Your task to perform on an android device: turn on bluetooth scan Image 0: 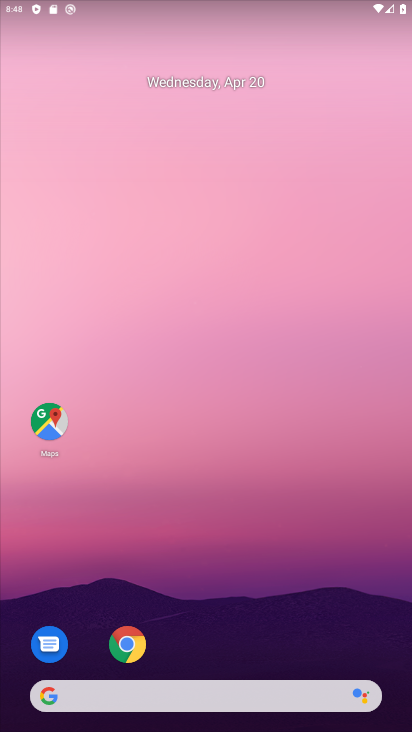
Step 0: drag from (197, 647) to (243, 262)
Your task to perform on an android device: turn on bluetooth scan Image 1: 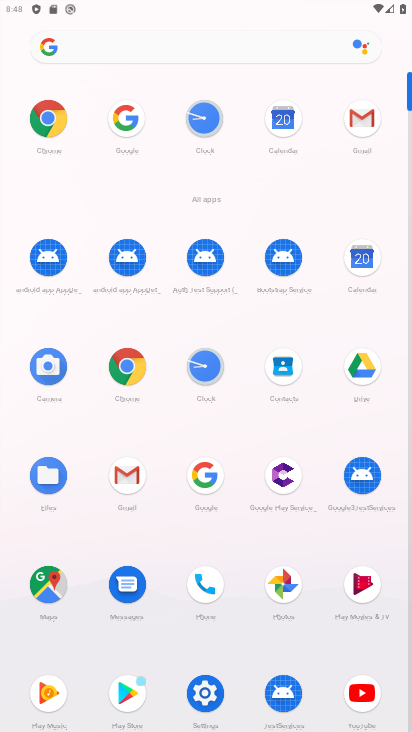
Step 1: click (204, 693)
Your task to perform on an android device: turn on bluetooth scan Image 2: 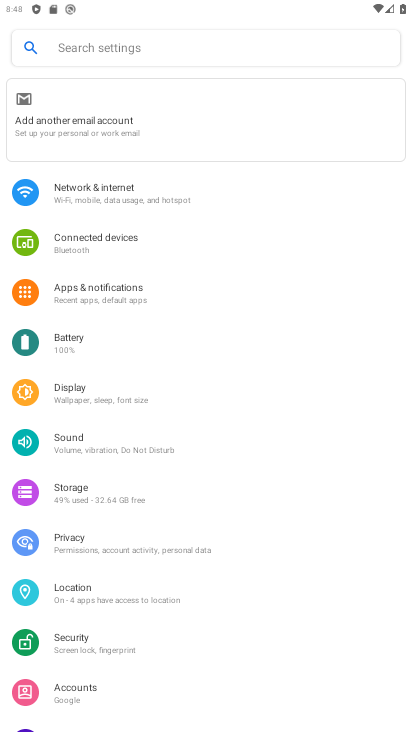
Step 2: drag from (108, 712) to (160, 270)
Your task to perform on an android device: turn on bluetooth scan Image 3: 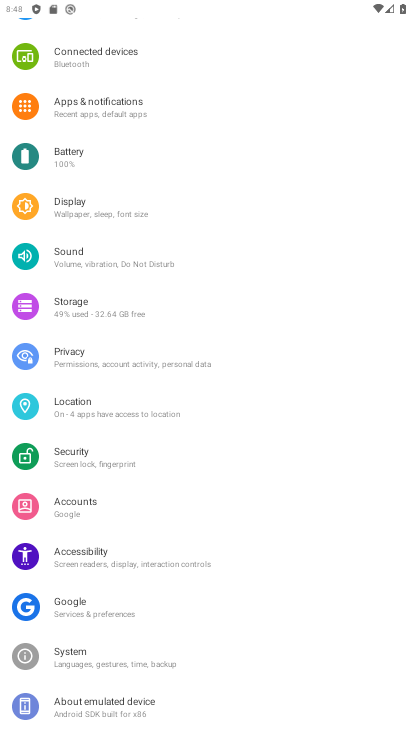
Step 3: click (103, 408)
Your task to perform on an android device: turn on bluetooth scan Image 4: 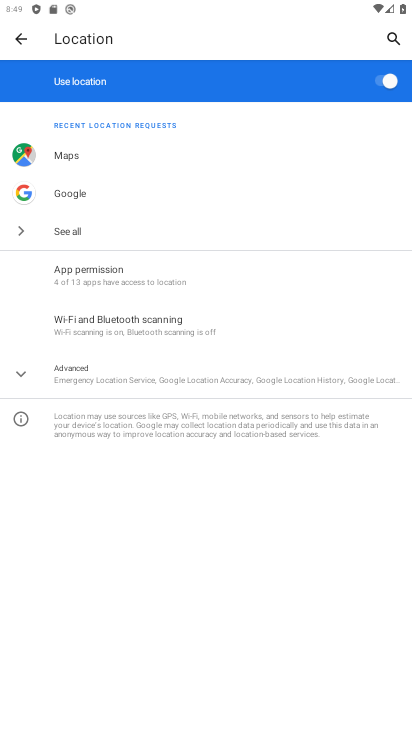
Step 4: click (96, 322)
Your task to perform on an android device: turn on bluetooth scan Image 5: 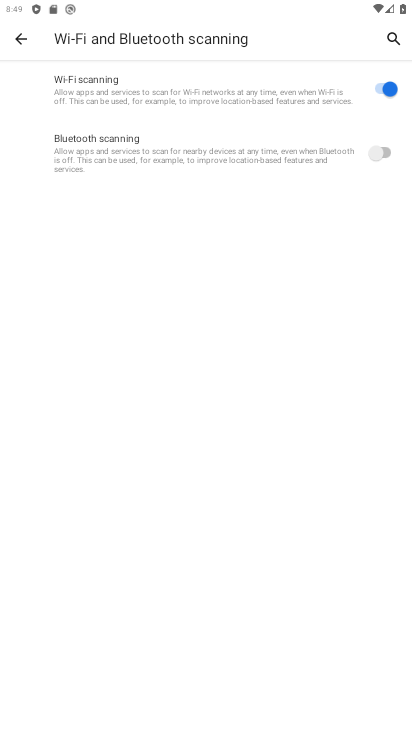
Step 5: click (384, 149)
Your task to perform on an android device: turn on bluetooth scan Image 6: 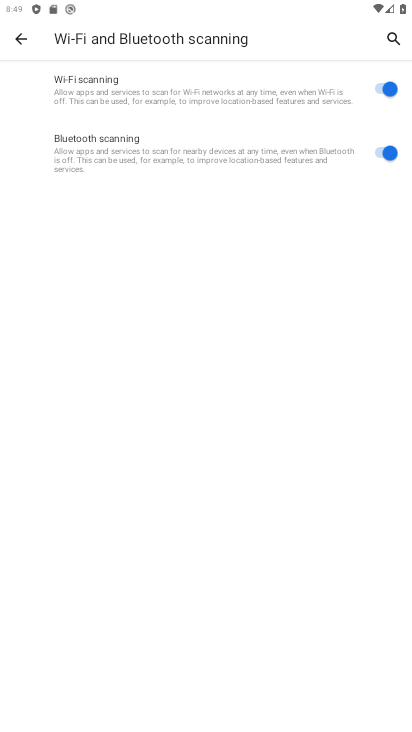
Step 6: task complete